Your task to perform on an android device: Open the Play Movies app and select the watchlist tab. Image 0: 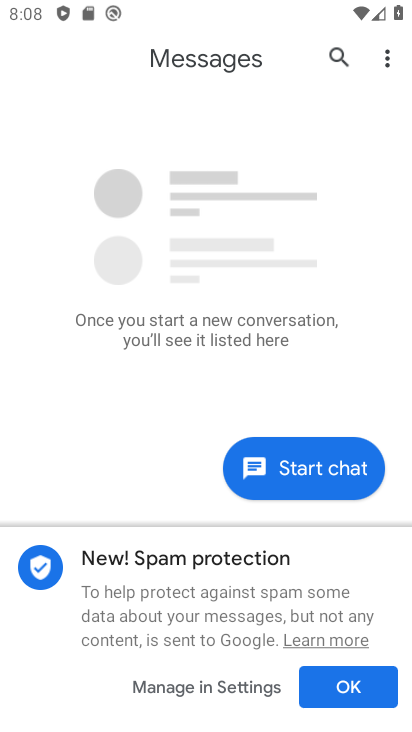
Step 0: press home button
Your task to perform on an android device: Open the Play Movies app and select the watchlist tab. Image 1: 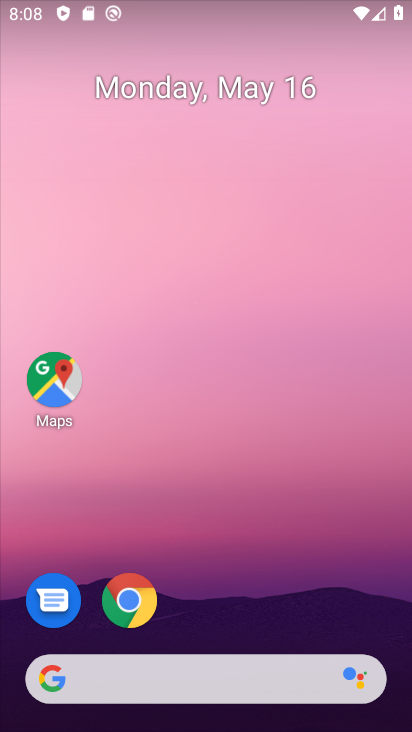
Step 1: drag from (241, 622) to (313, 23)
Your task to perform on an android device: Open the Play Movies app and select the watchlist tab. Image 2: 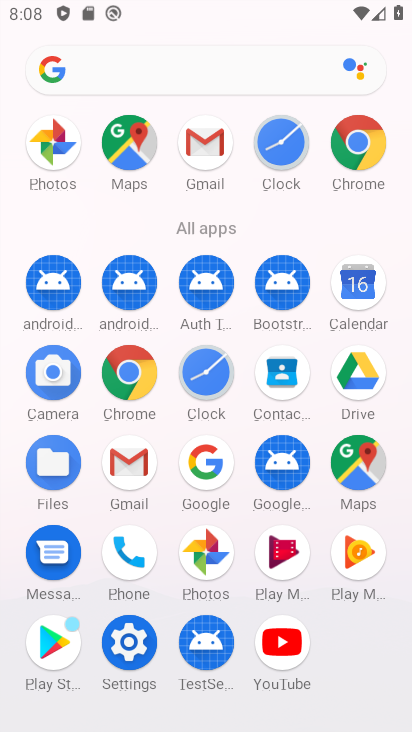
Step 2: click (274, 559)
Your task to perform on an android device: Open the Play Movies app and select the watchlist tab. Image 3: 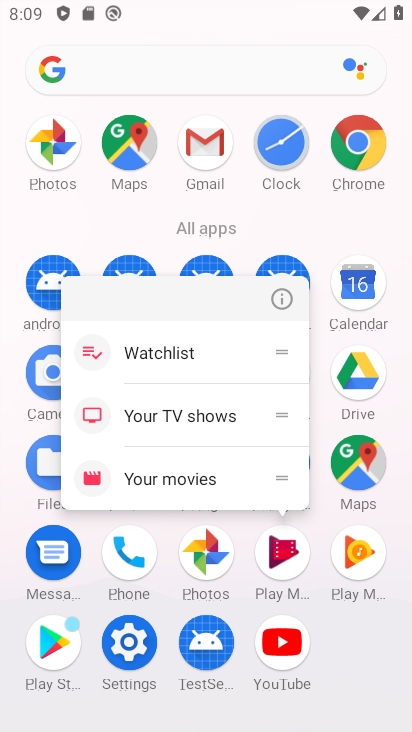
Step 3: click (274, 559)
Your task to perform on an android device: Open the Play Movies app and select the watchlist tab. Image 4: 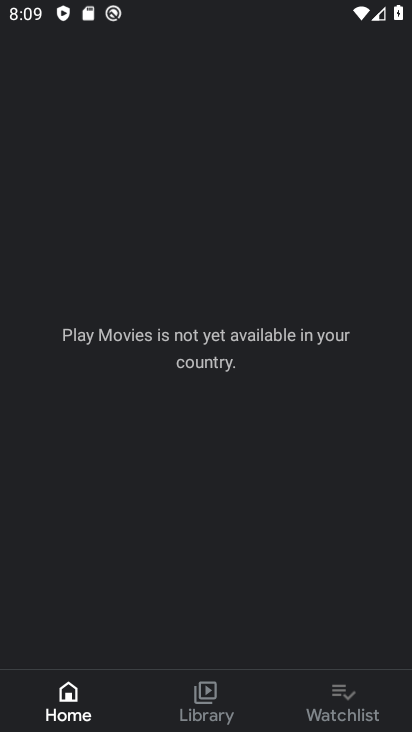
Step 4: click (328, 708)
Your task to perform on an android device: Open the Play Movies app and select the watchlist tab. Image 5: 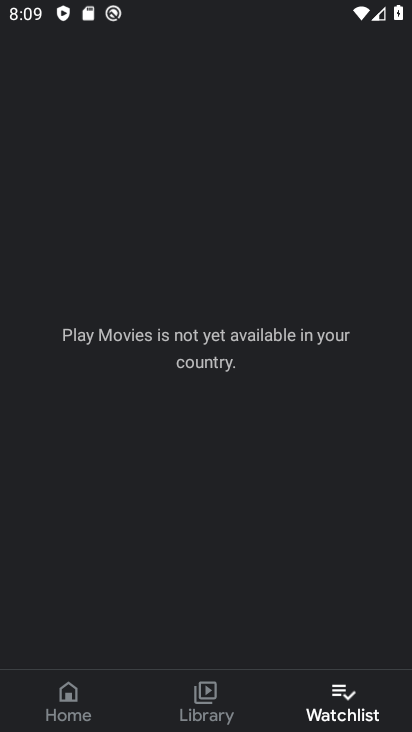
Step 5: task complete